Your task to perform on an android device: Play the latest video from the BBC Image 0: 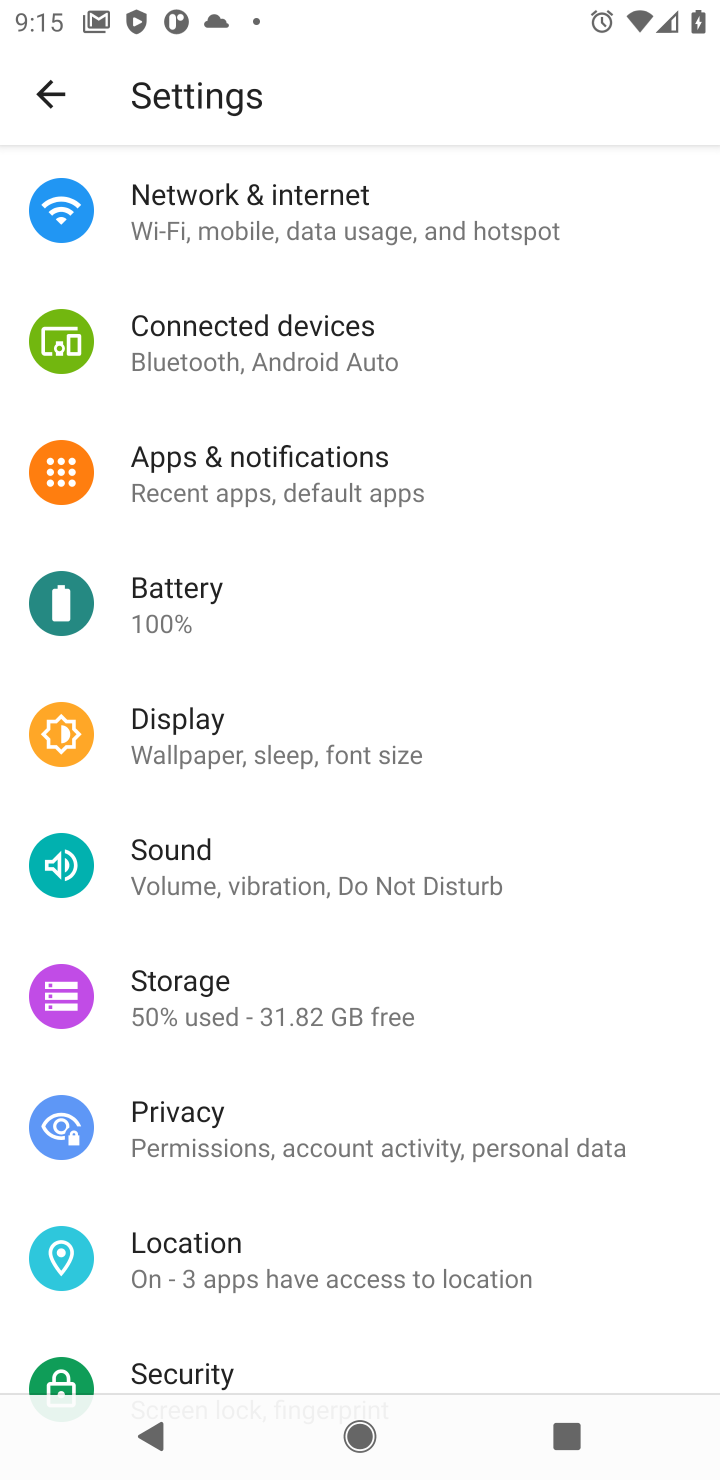
Step 0: press home button
Your task to perform on an android device: Play the latest video from the BBC Image 1: 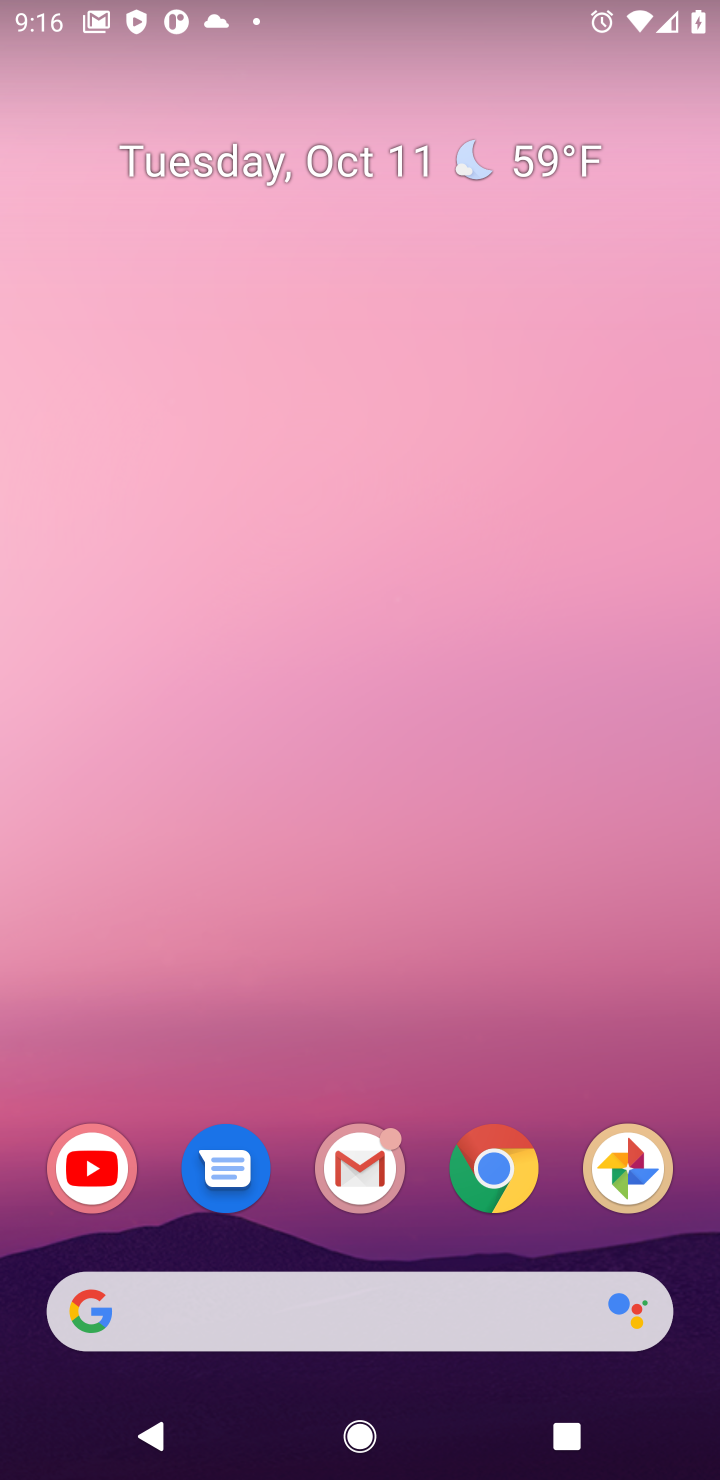
Step 1: drag from (379, 737) to (381, 240)
Your task to perform on an android device: Play the latest video from the BBC Image 2: 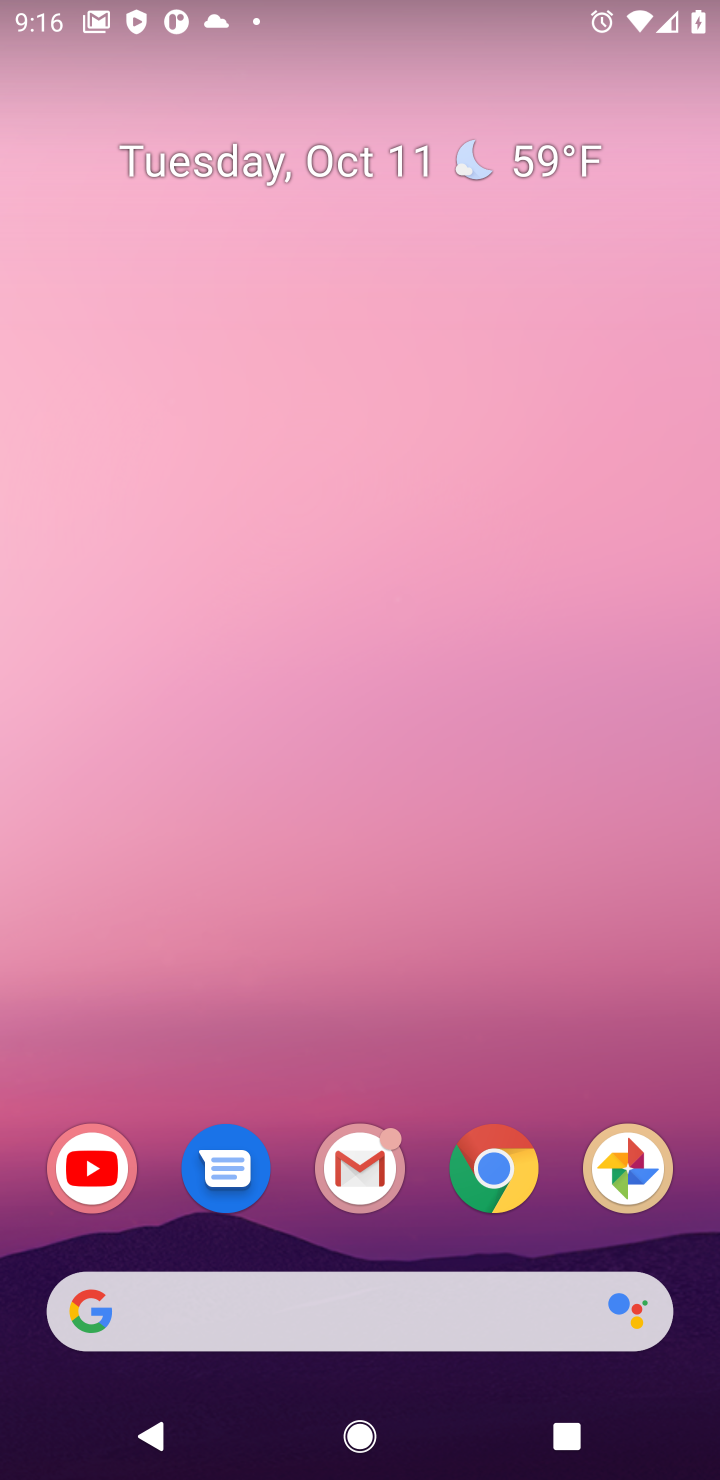
Step 2: drag from (375, 796) to (412, 268)
Your task to perform on an android device: Play the latest video from the BBC Image 3: 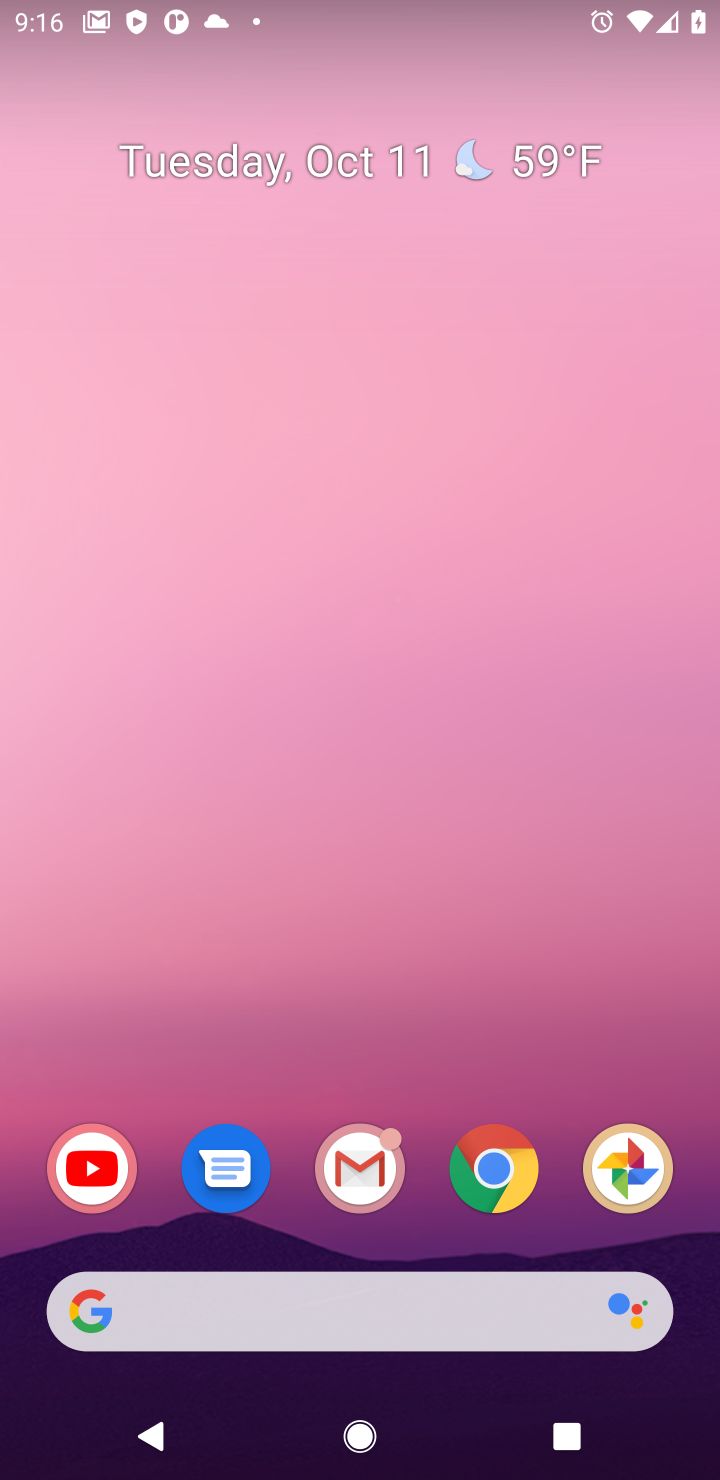
Step 3: drag from (317, 1056) to (372, 51)
Your task to perform on an android device: Play the latest video from the BBC Image 4: 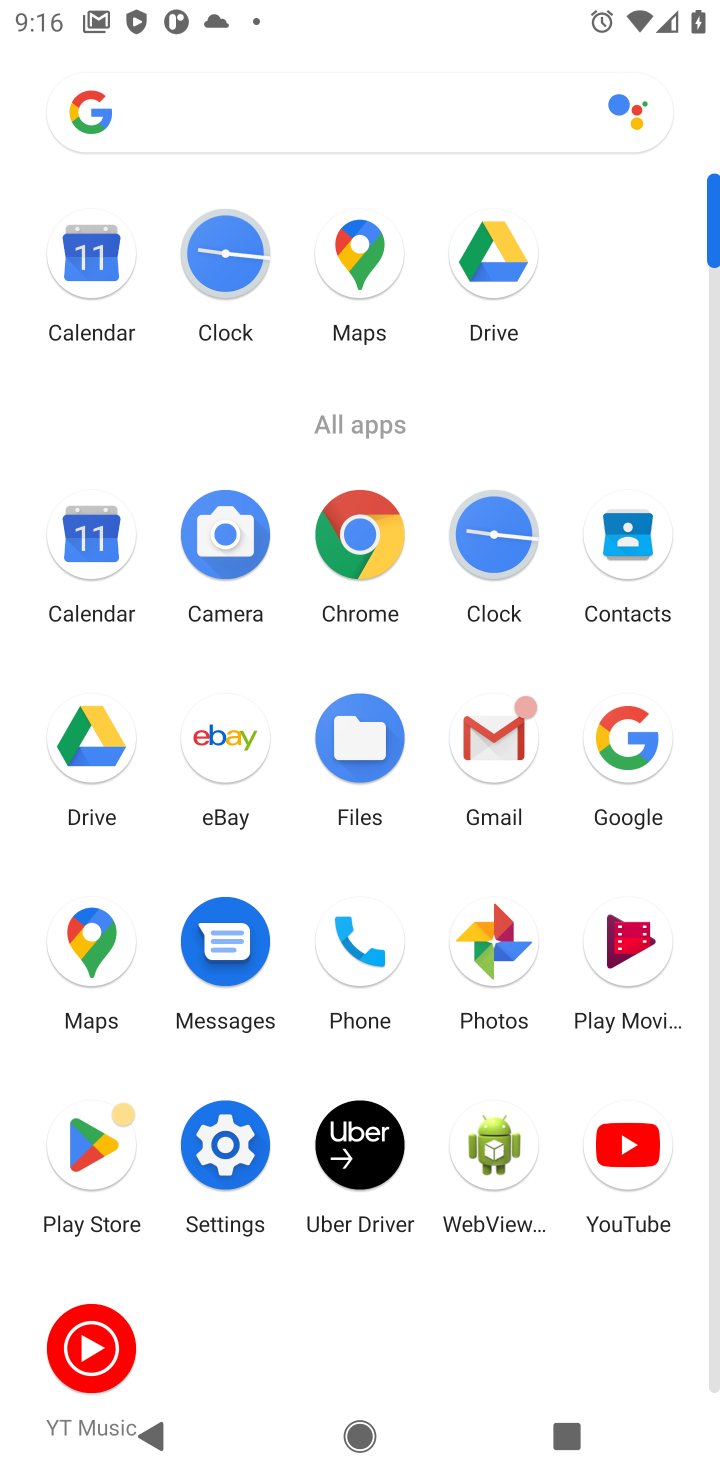
Step 4: click (650, 1137)
Your task to perform on an android device: Play the latest video from the BBC Image 5: 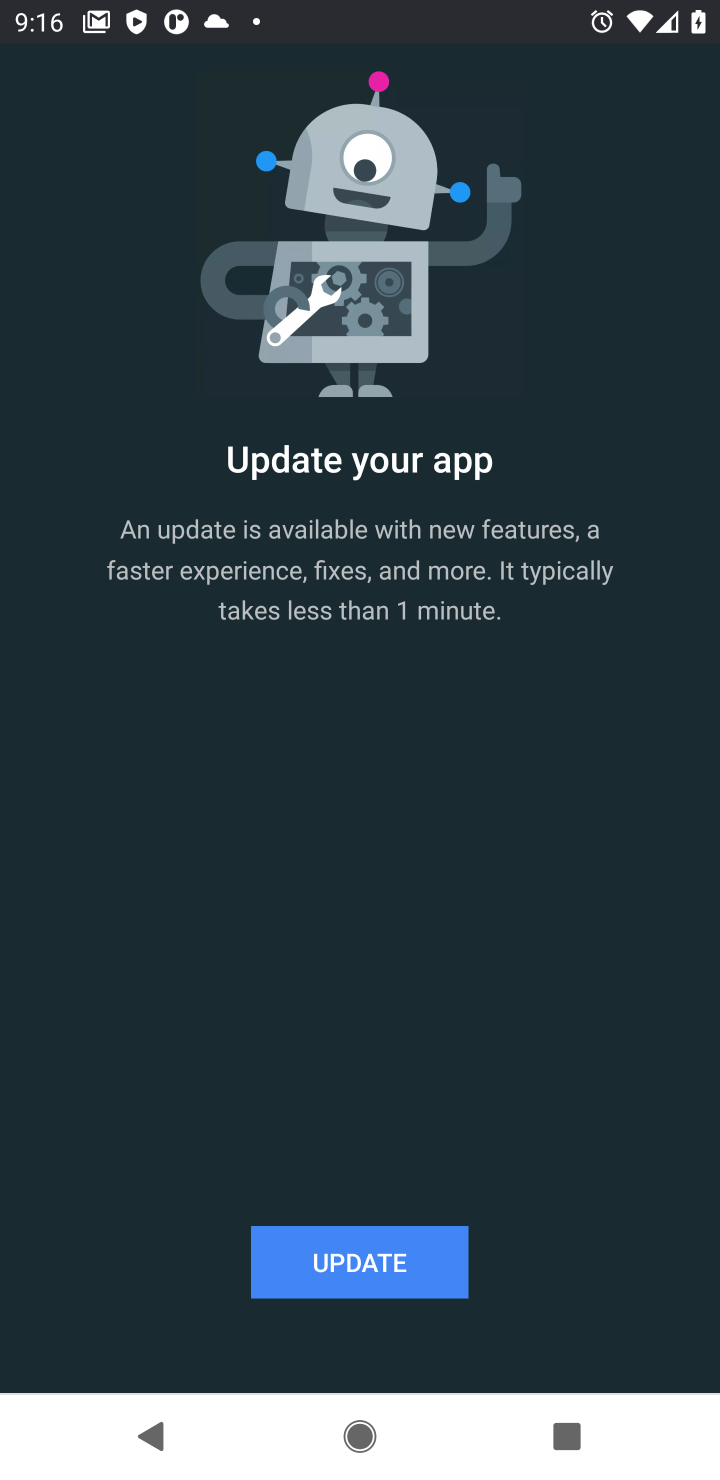
Step 5: click (322, 1254)
Your task to perform on an android device: Play the latest video from the BBC Image 6: 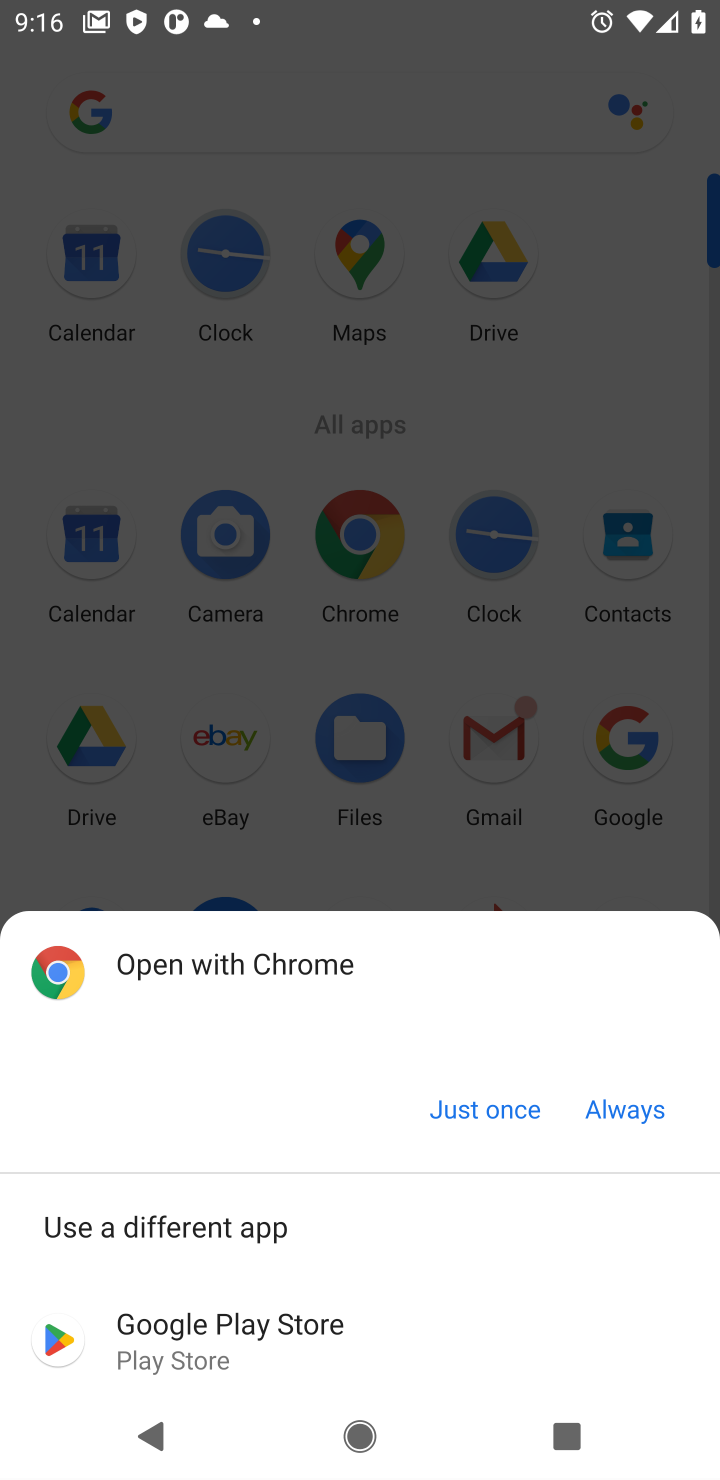
Step 6: click (226, 1341)
Your task to perform on an android device: Play the latest video from the BBC Image 7: 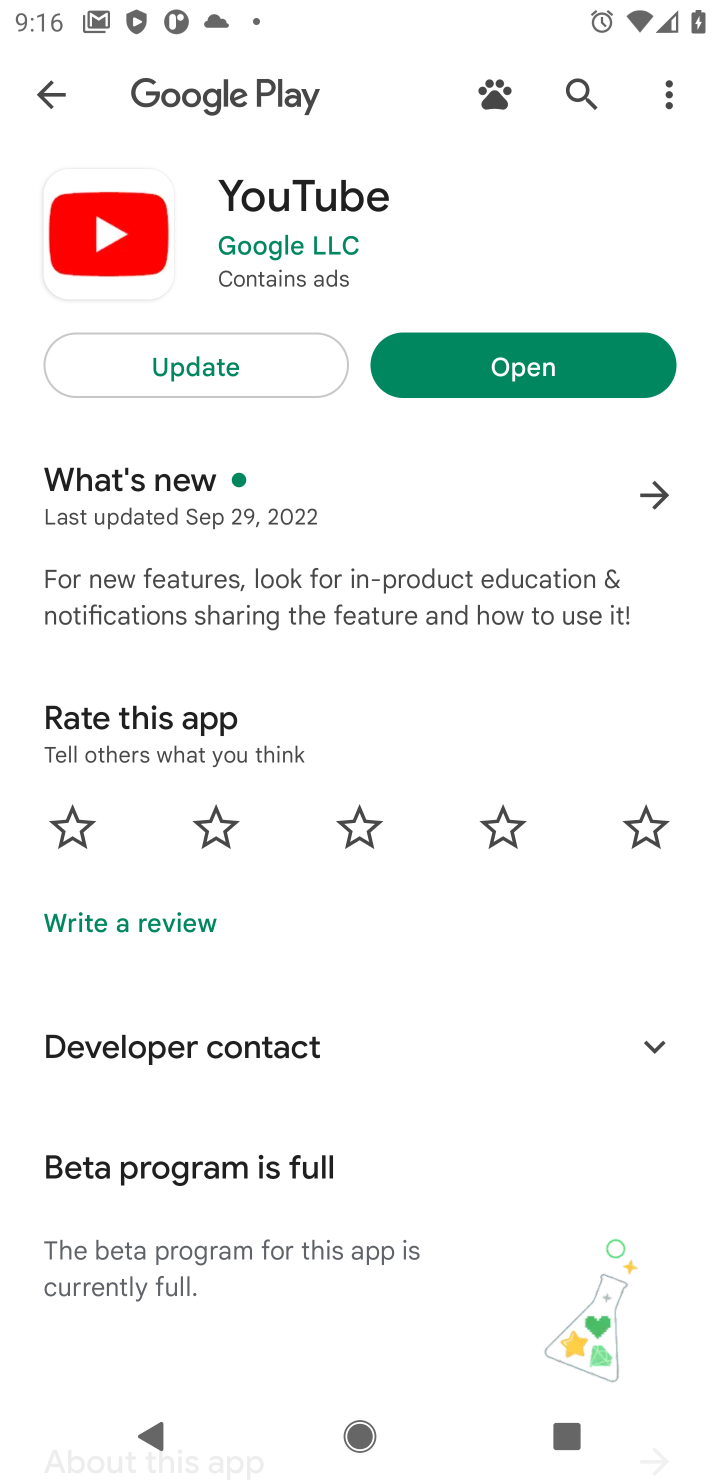
Step 7: click (590, 375)
Your task to perform on an android device: Play the latest video from the BBC Image 8: 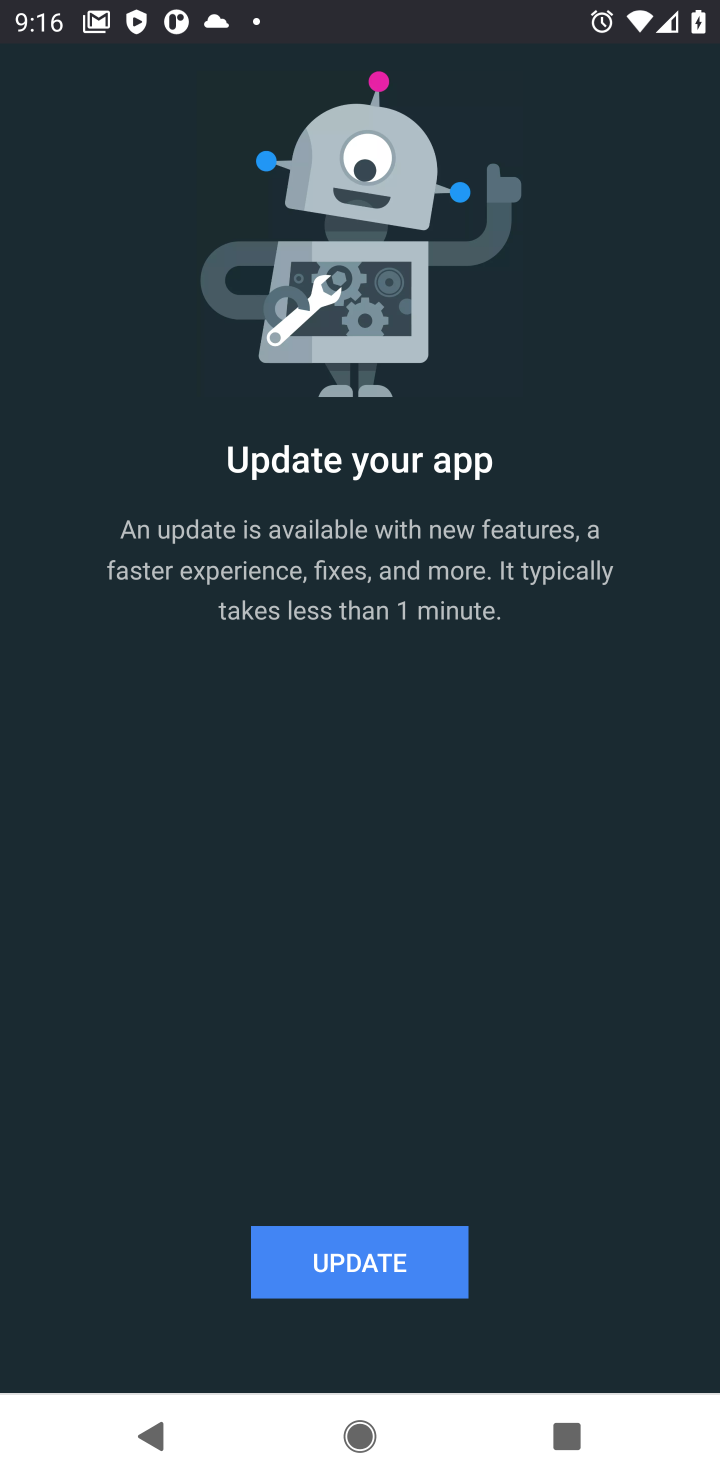
Step 8: click (423, 1265)
Your task to perform on an android device: Play the latest video from the BBC Image 9: 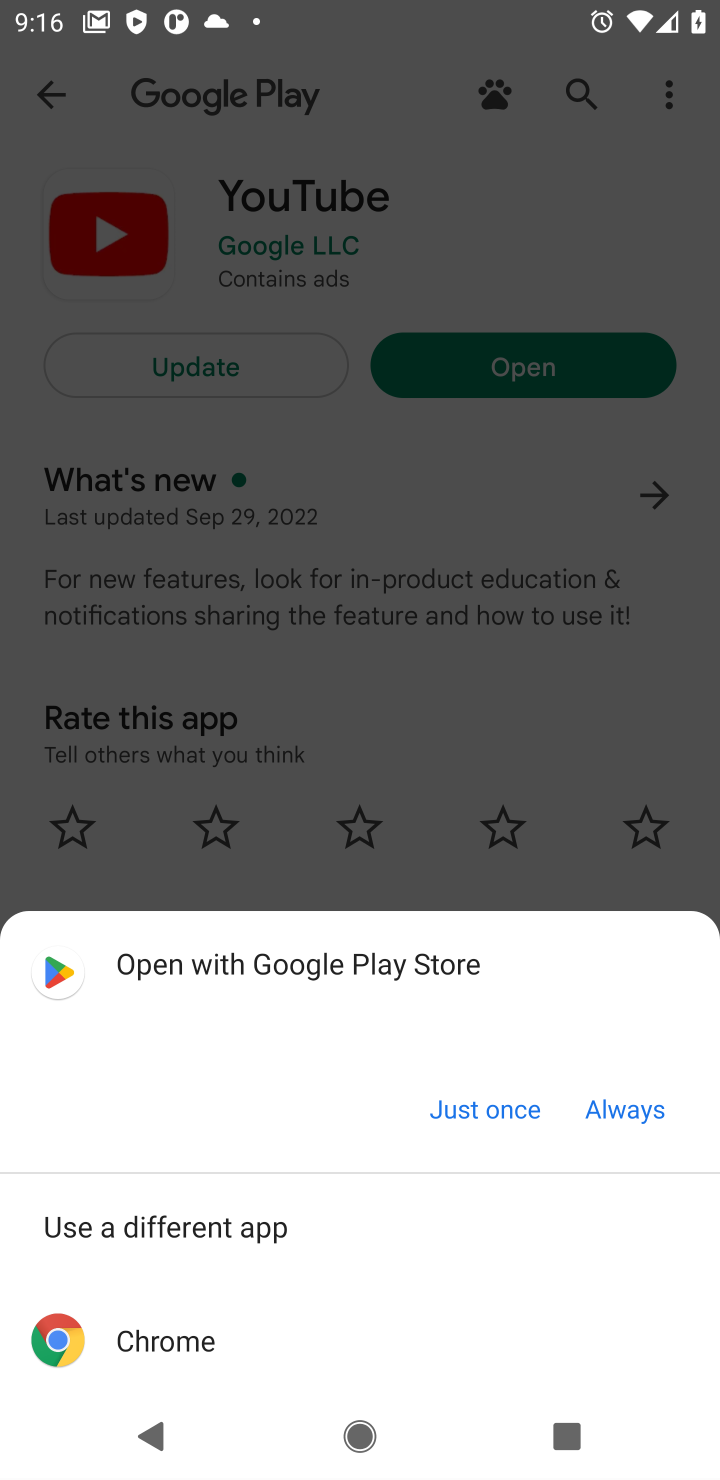
Step 9: click (182, 1344)
Your task to perform on an android device: Play the latest video from the BBC Image 10: 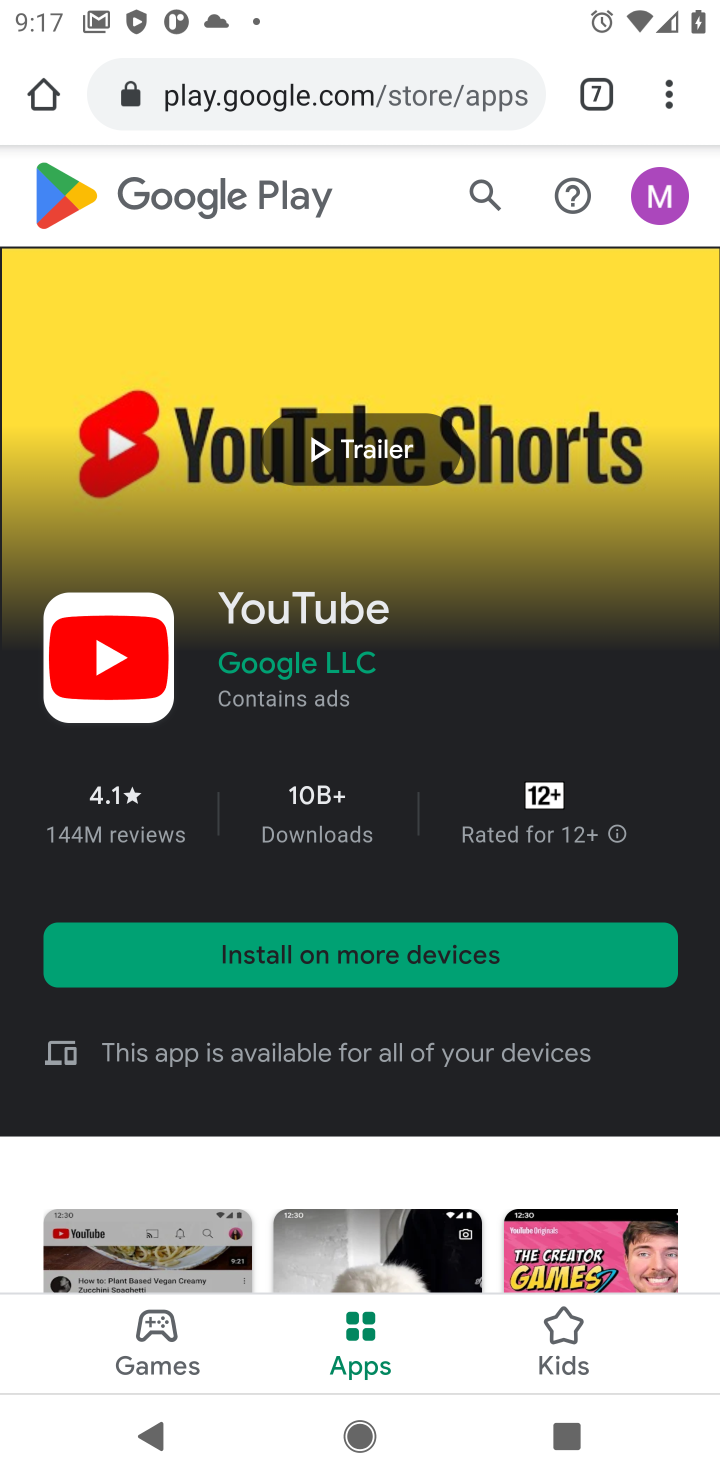
Step 10: click (295, 599)
Your task to perform on an android device: Play the latest video from the BBC Image 11: 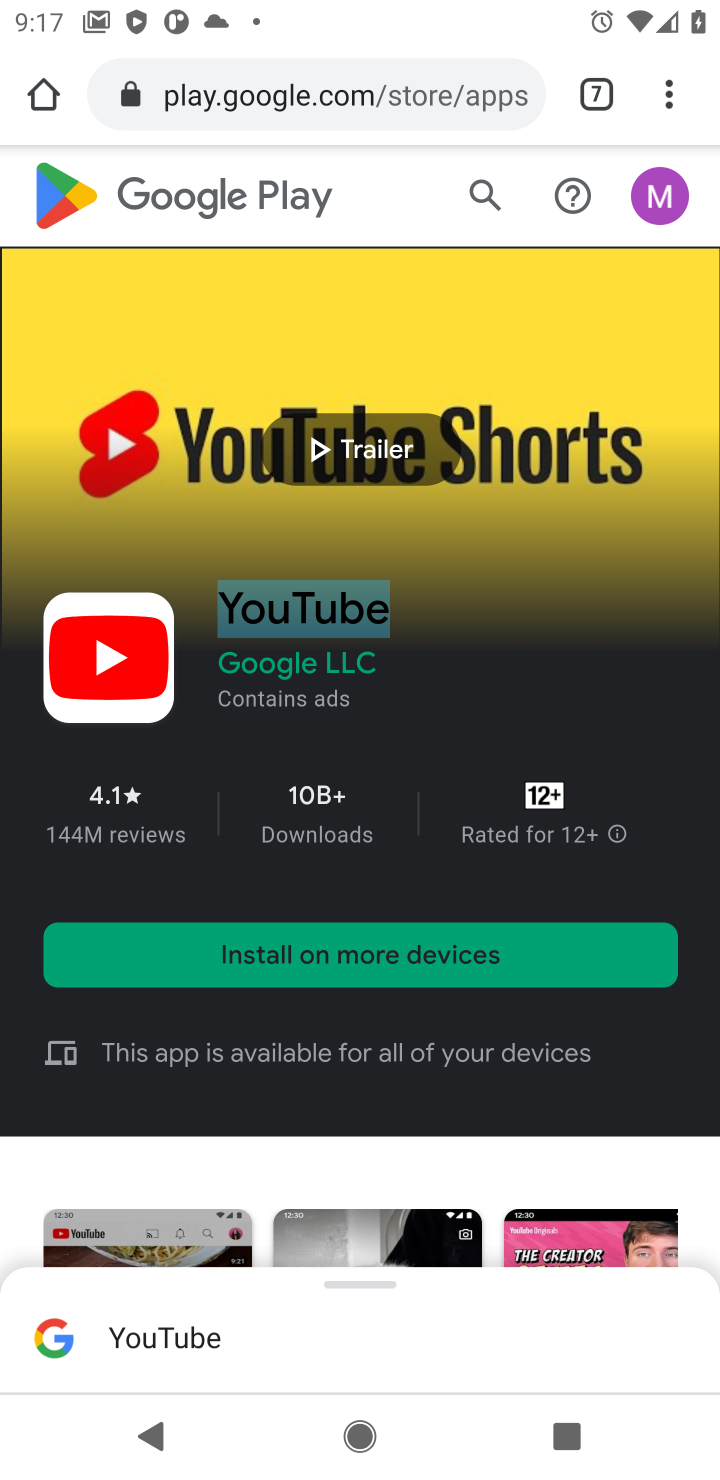
Step 11: click (334, 940)
Your task to perform on an android device: Play the latest video from the BBC Image 12: 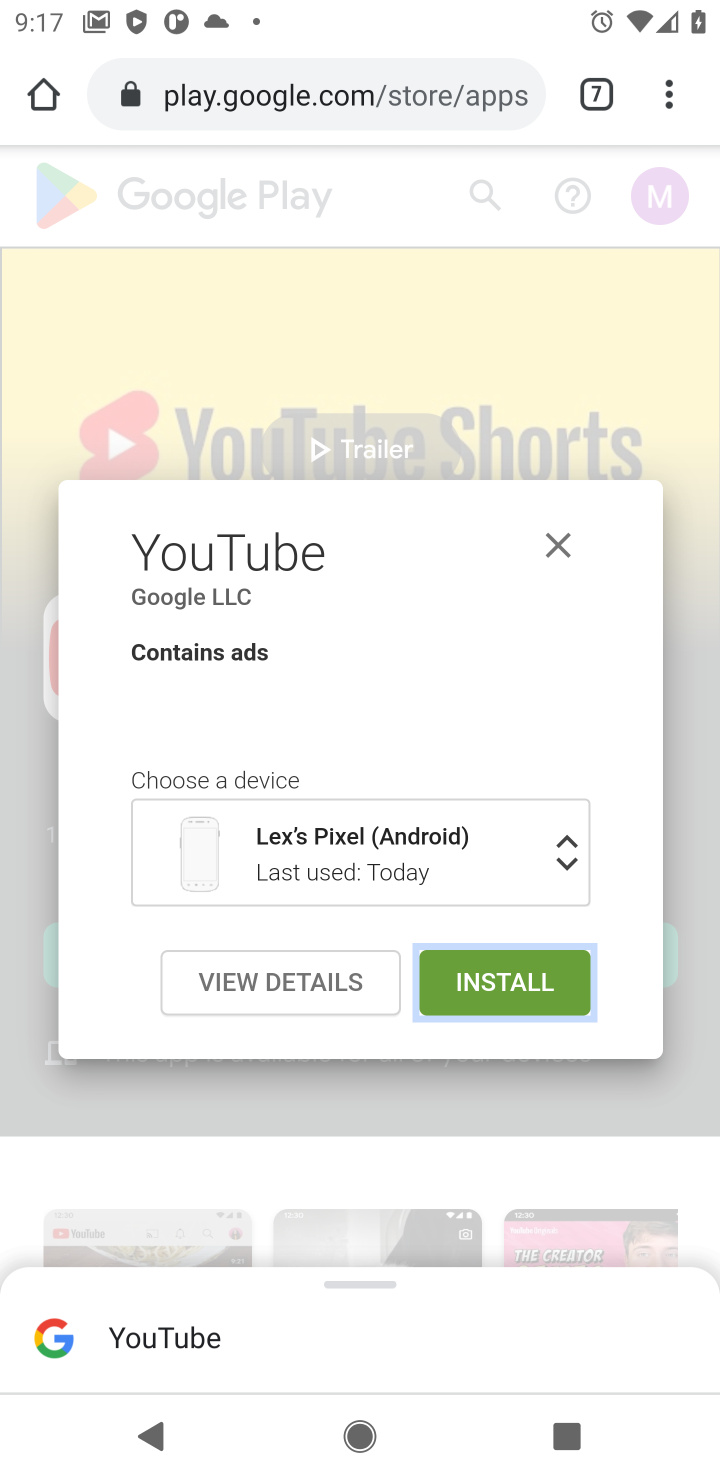
Step 12: click (553, 545)
Your task to perform on an android device: Play the latest video from the BBC Image 13: 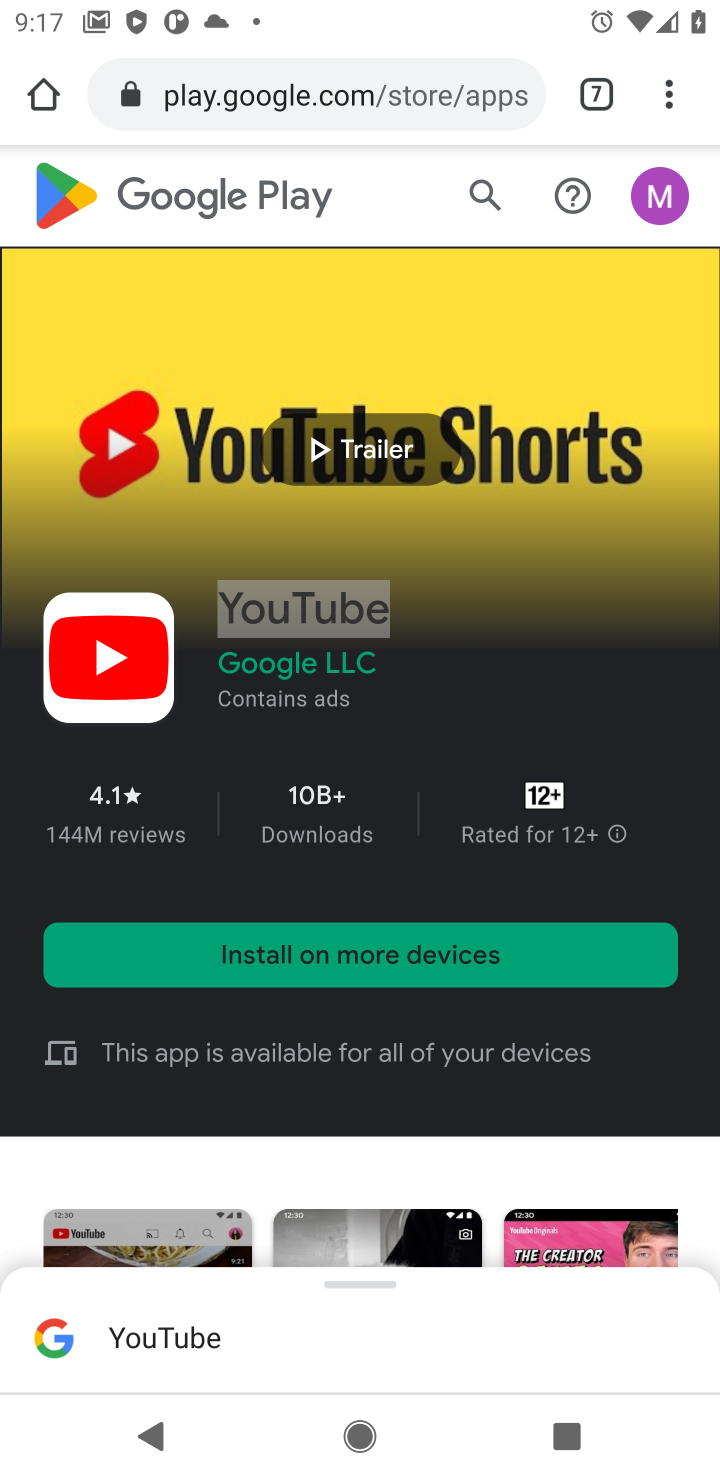
Step 13: click (482, 179)
Your task to perform on an android device: Play the latest video from the BBC Image 14: 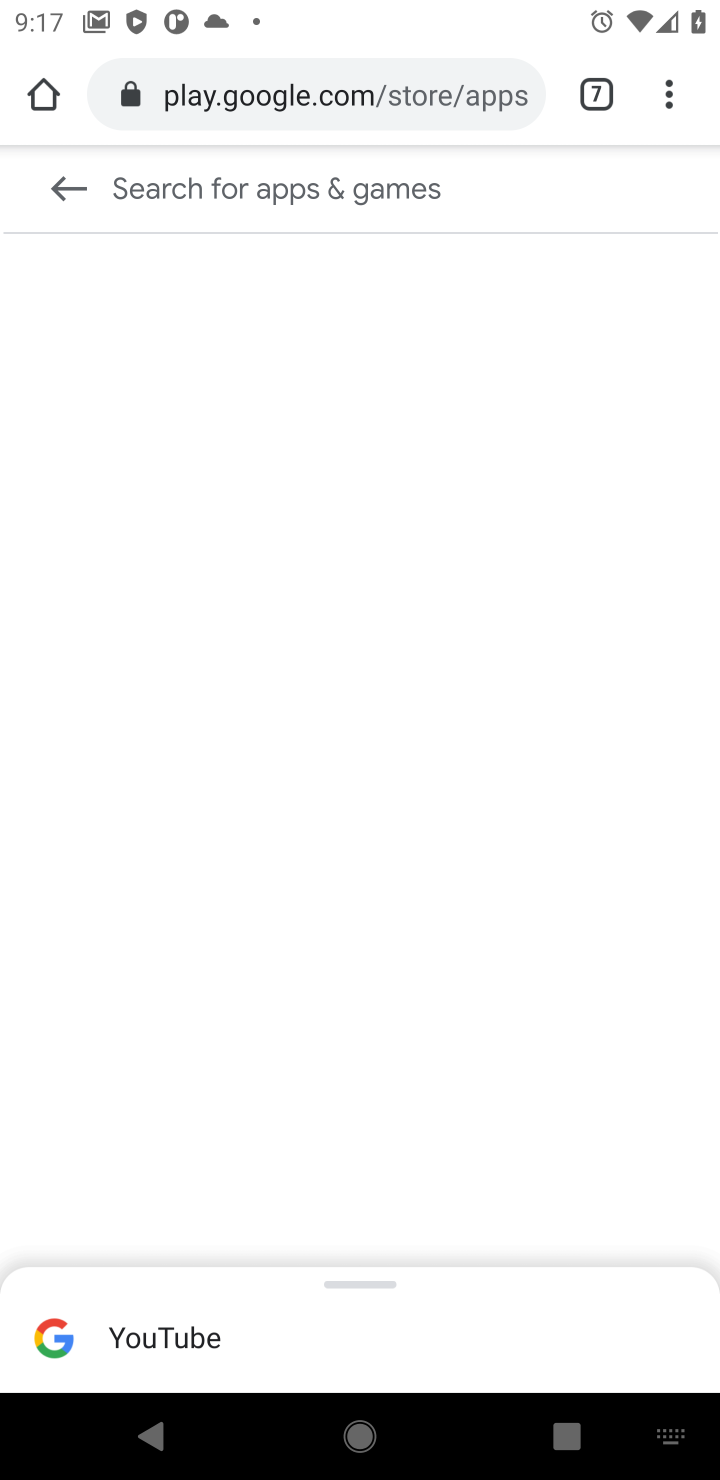
Step 14: type "latest video from bbc"
Your task to perform on an android device: Play the latest video from the BBC Image 15: 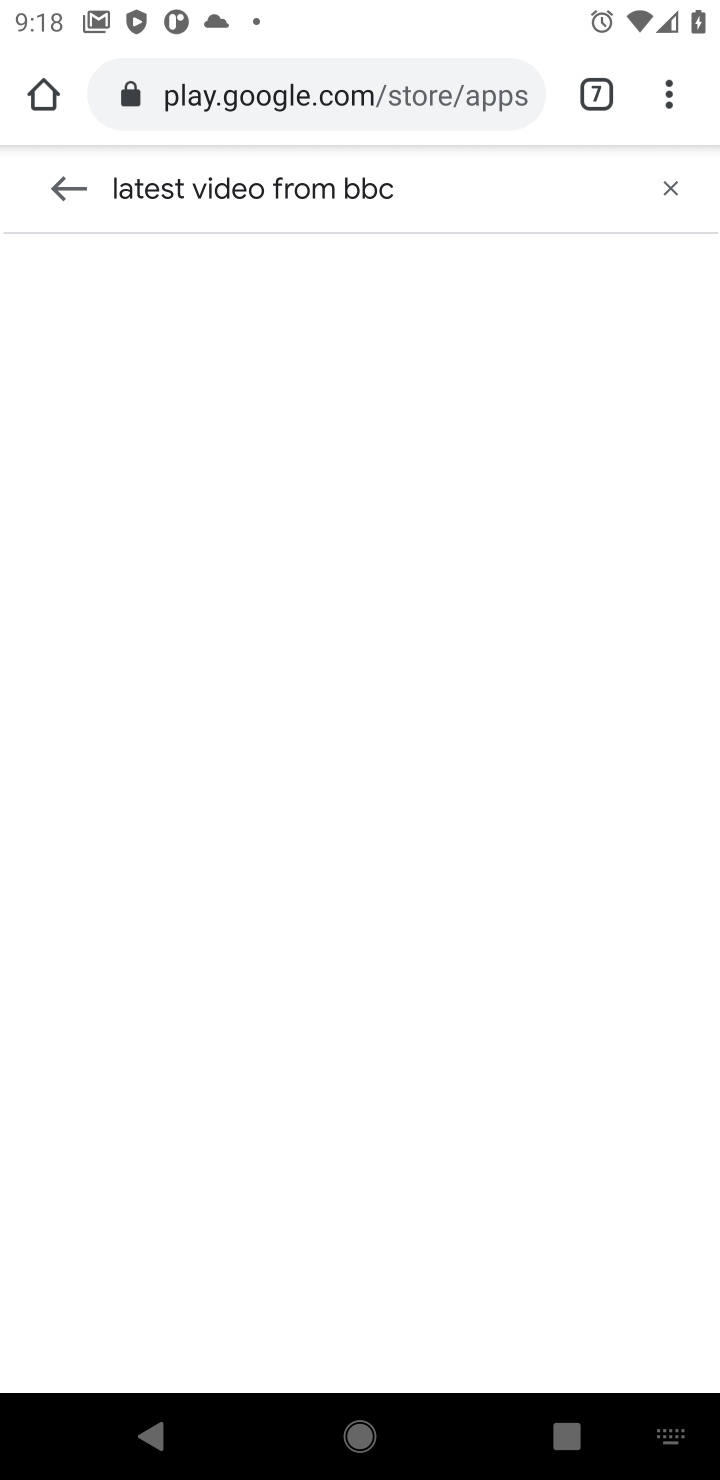
Step 15: type ""
Your task to perform on an android device: Play the latest video from the BBC Image 16: 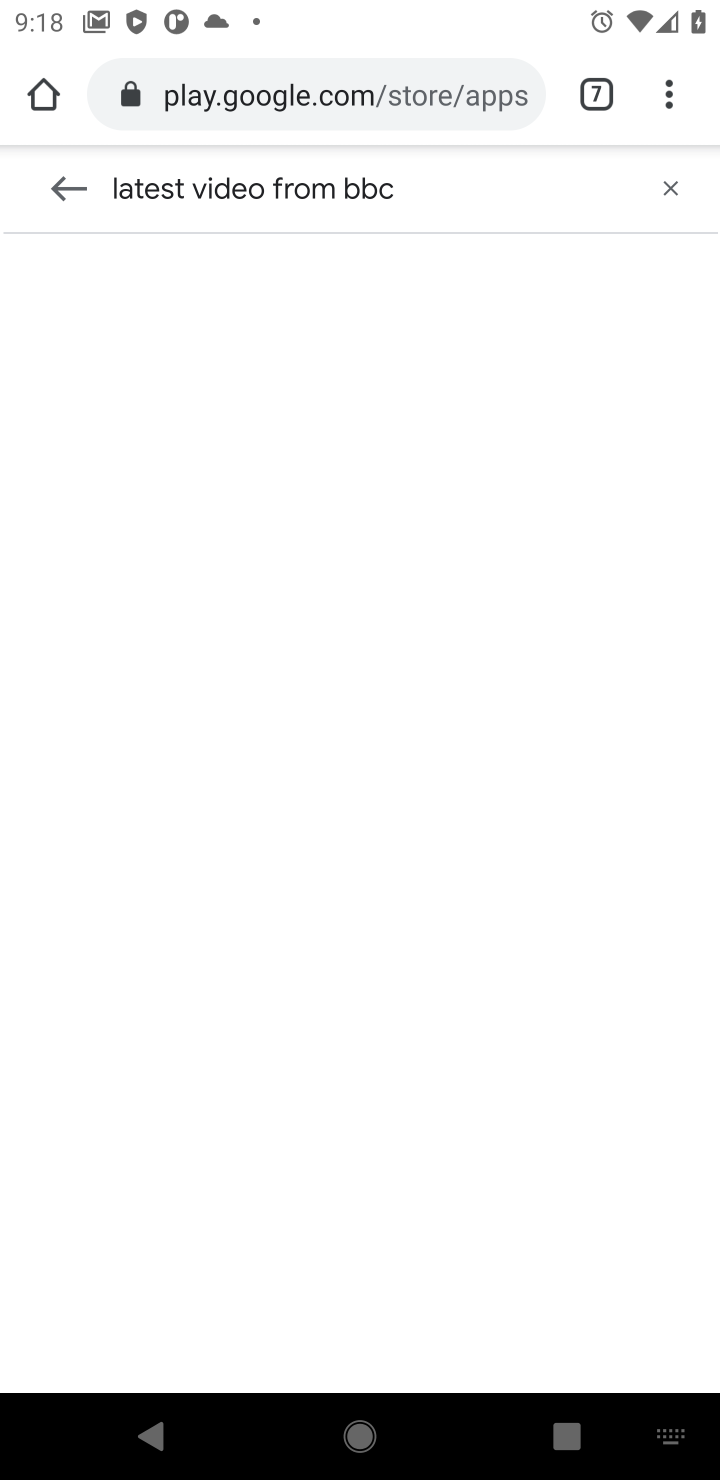
Step 16: type ""
Your task to perform on an android device: Play the latest video from the BBC Image 17: 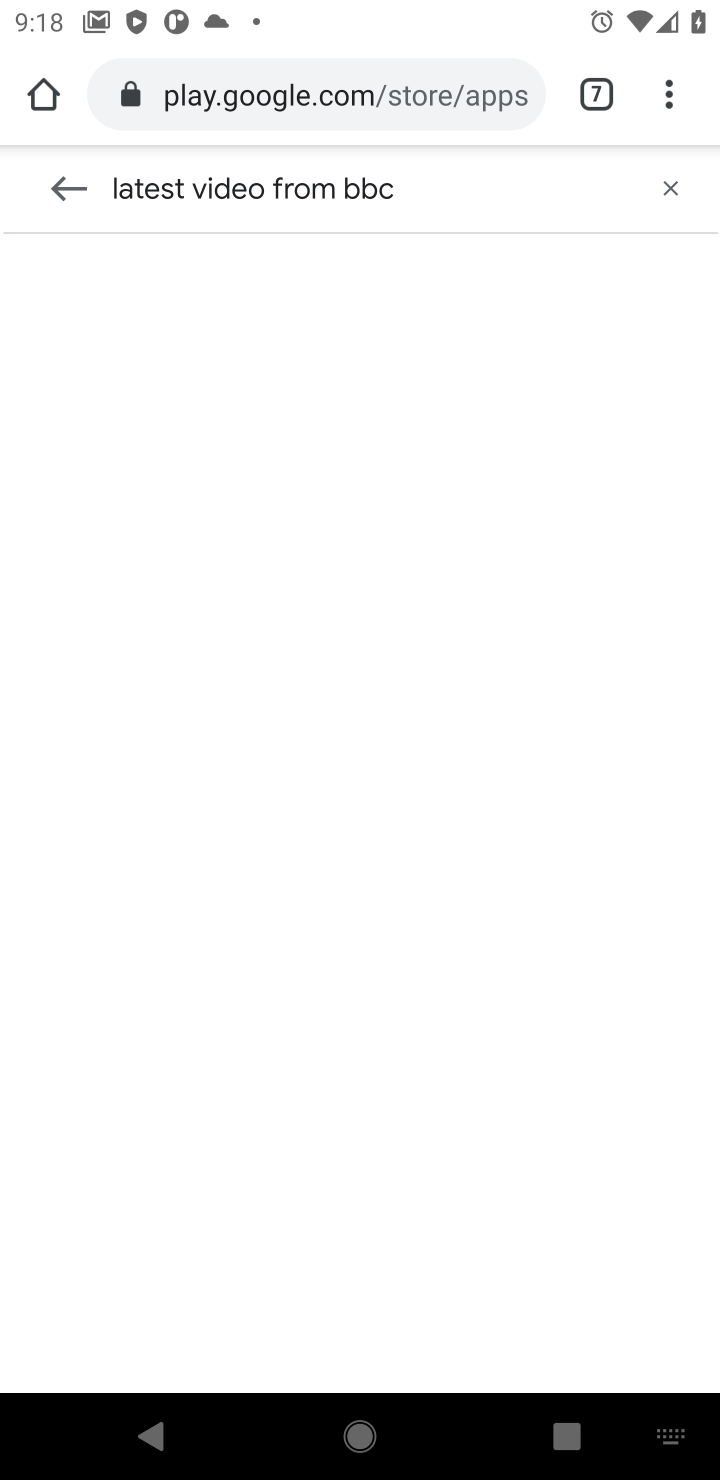
Step 17: type ""
Your task to perform on an android device: Play the latest video from the BBC Image 18: 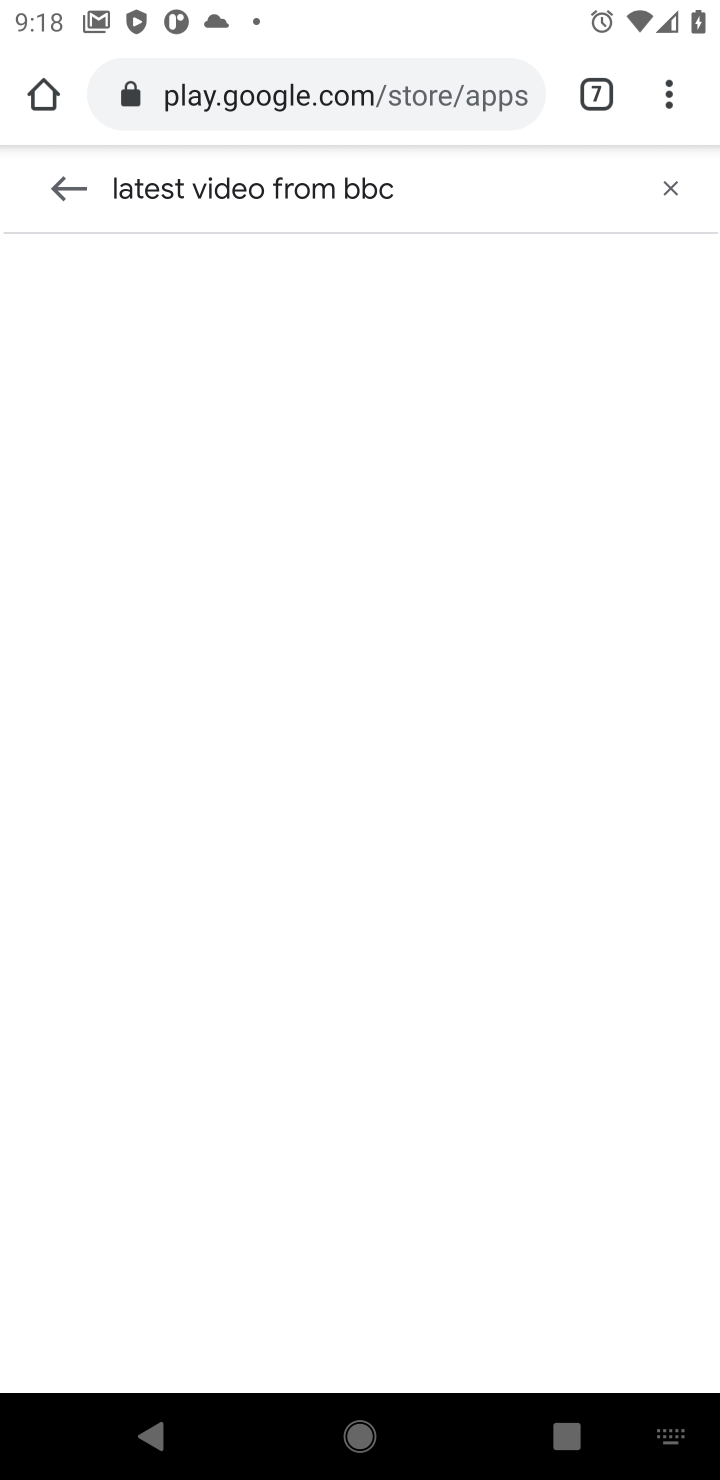
Step 18: click (665, 194)
Your task to perform on an android device: Play the latest video from the BBC Image 19: 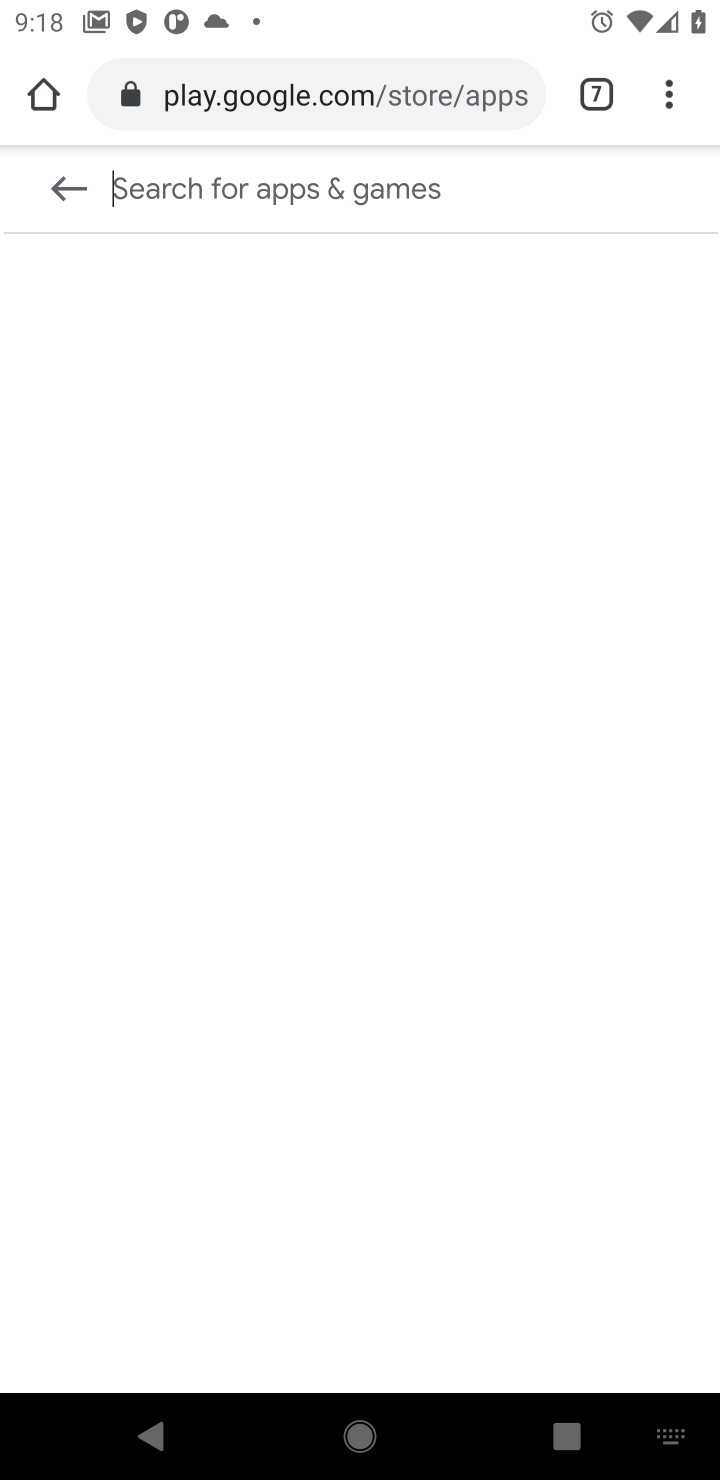
Step 19: press home button
Your task to perform on an android device: Play the latest video from the BBC Image 20: 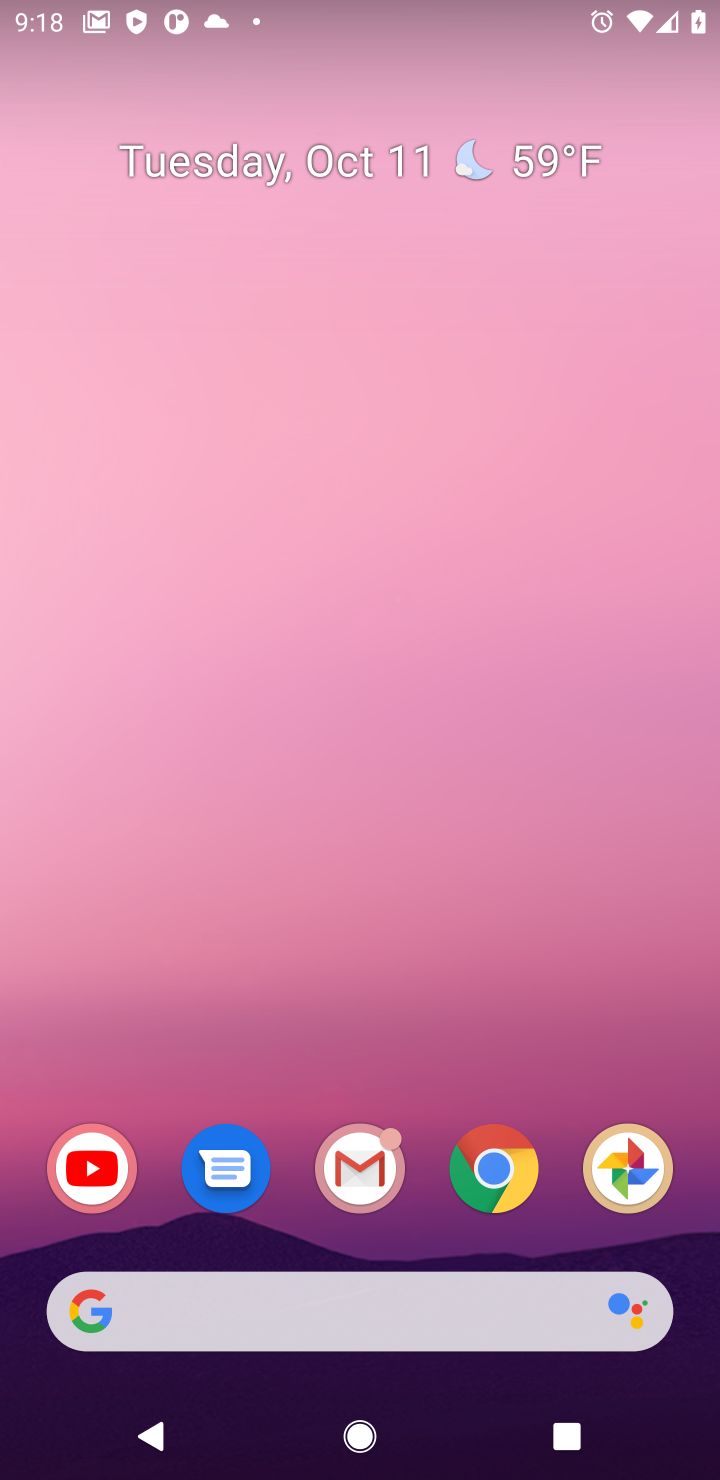
Step 20: click (488, 1162)
Your task to perform on an android device: Play the latest video from the BBC Image 21: 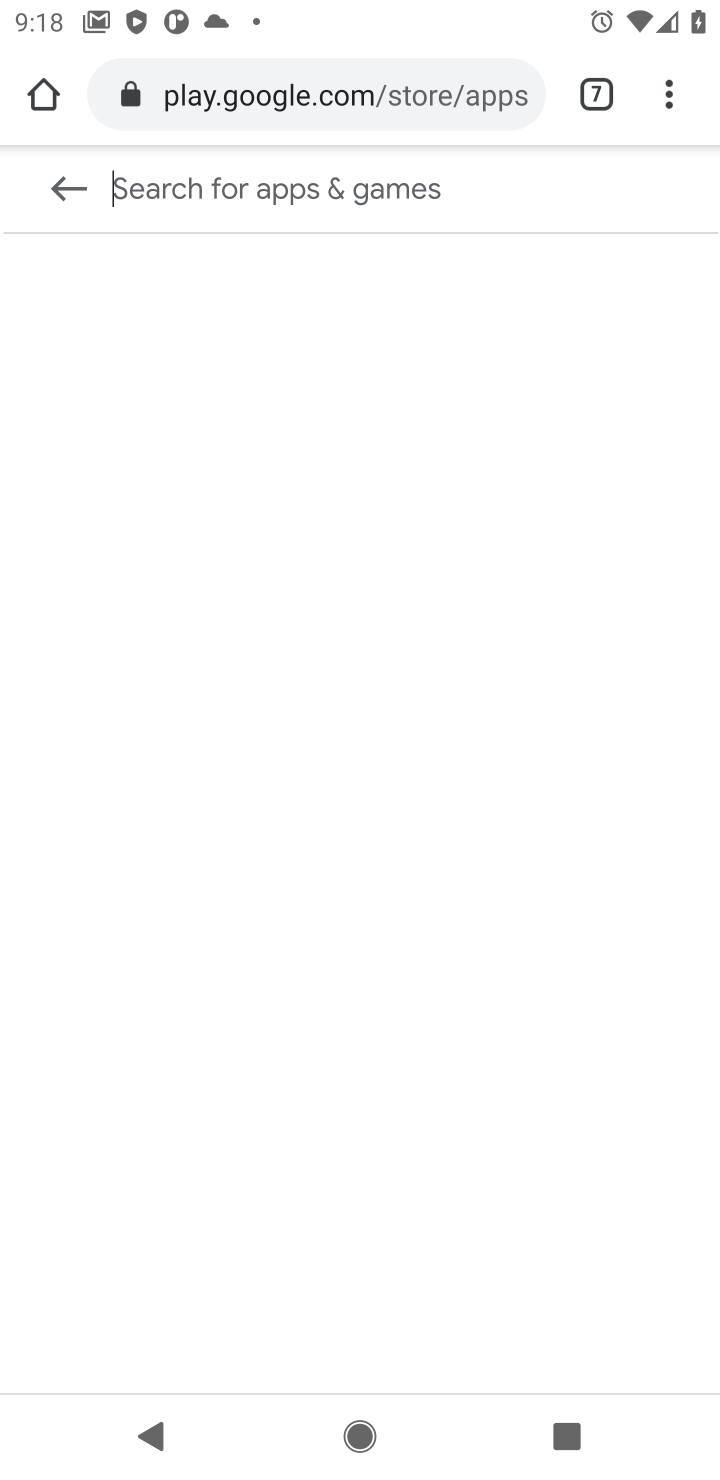
Step 21: click (252, 96)
Your task to perform on an android device: Play the latest video from the BBC Image 22: 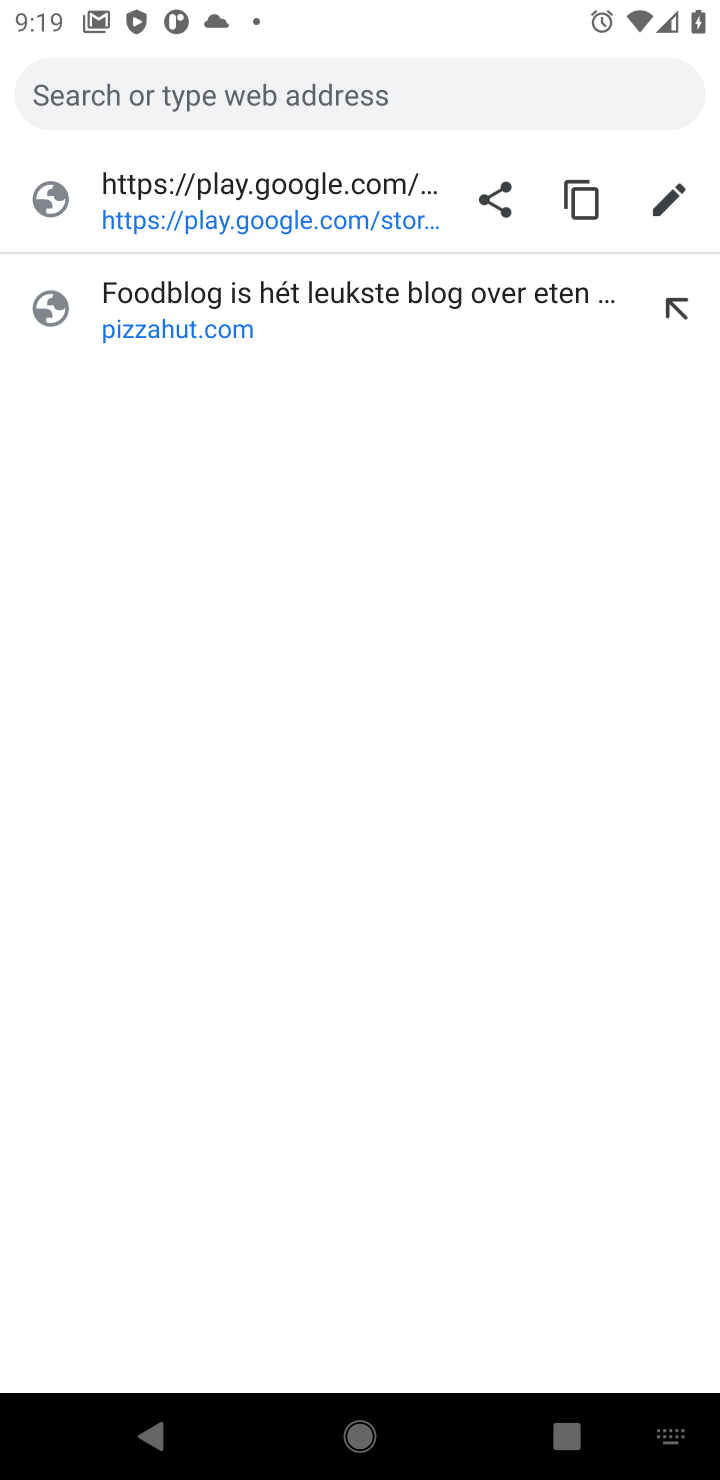
Step 22: type "latest video from the bbc"
Your task to perform on an android device: Play the latest video from the BBC Image 23: 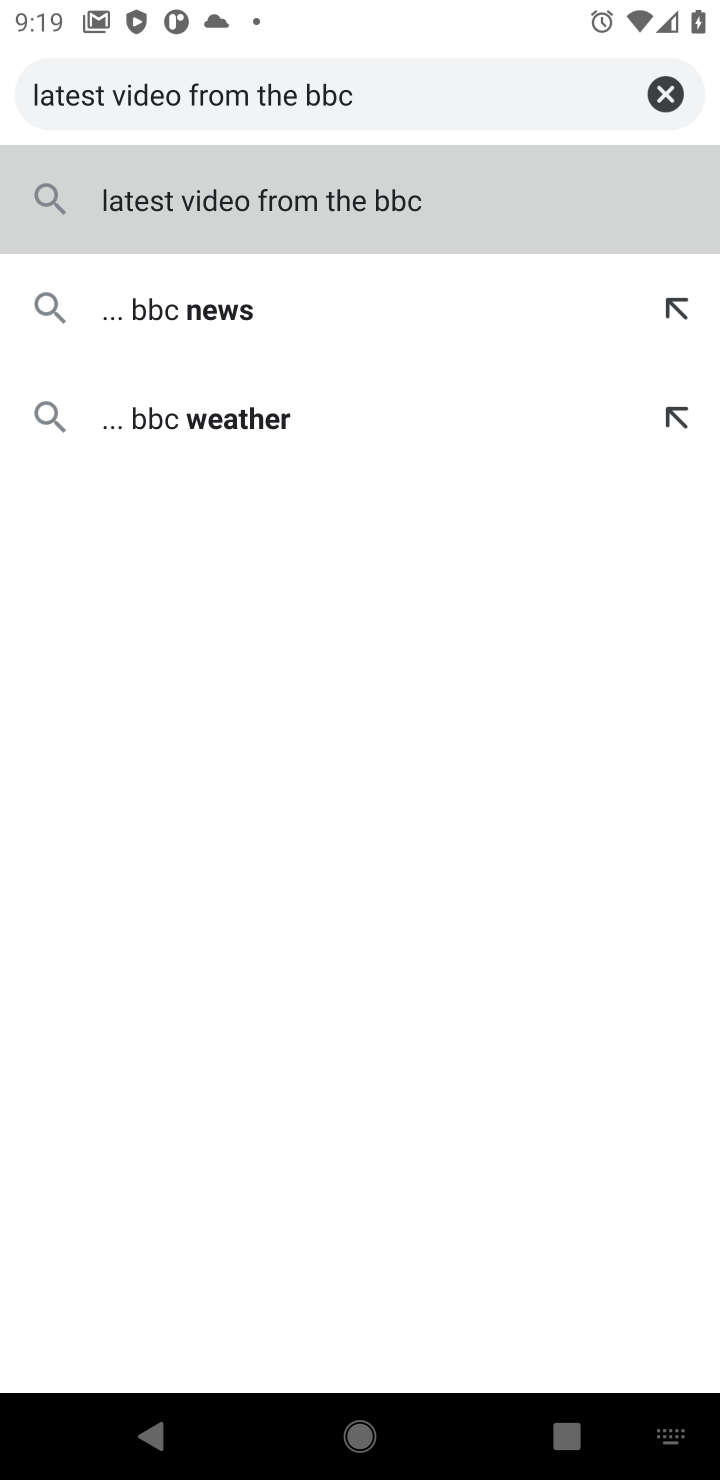
Step 23: click (291, 203)
Your task to perform on an android device: Play the latest video from the BBC Image 24: 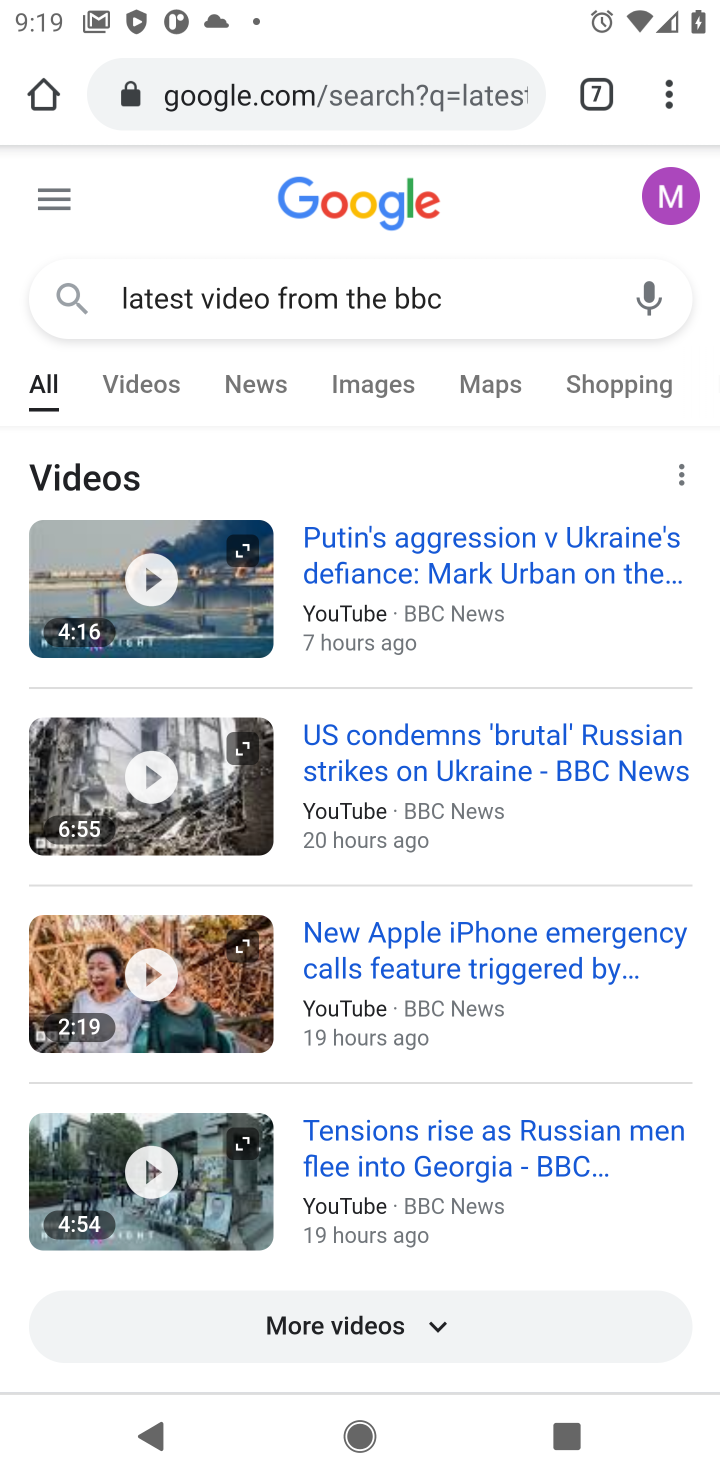
Step 24: drag from (224, 1120) to (247, 664)
Your task to perform on an android device: Play the latest video from the BBC Image 25: 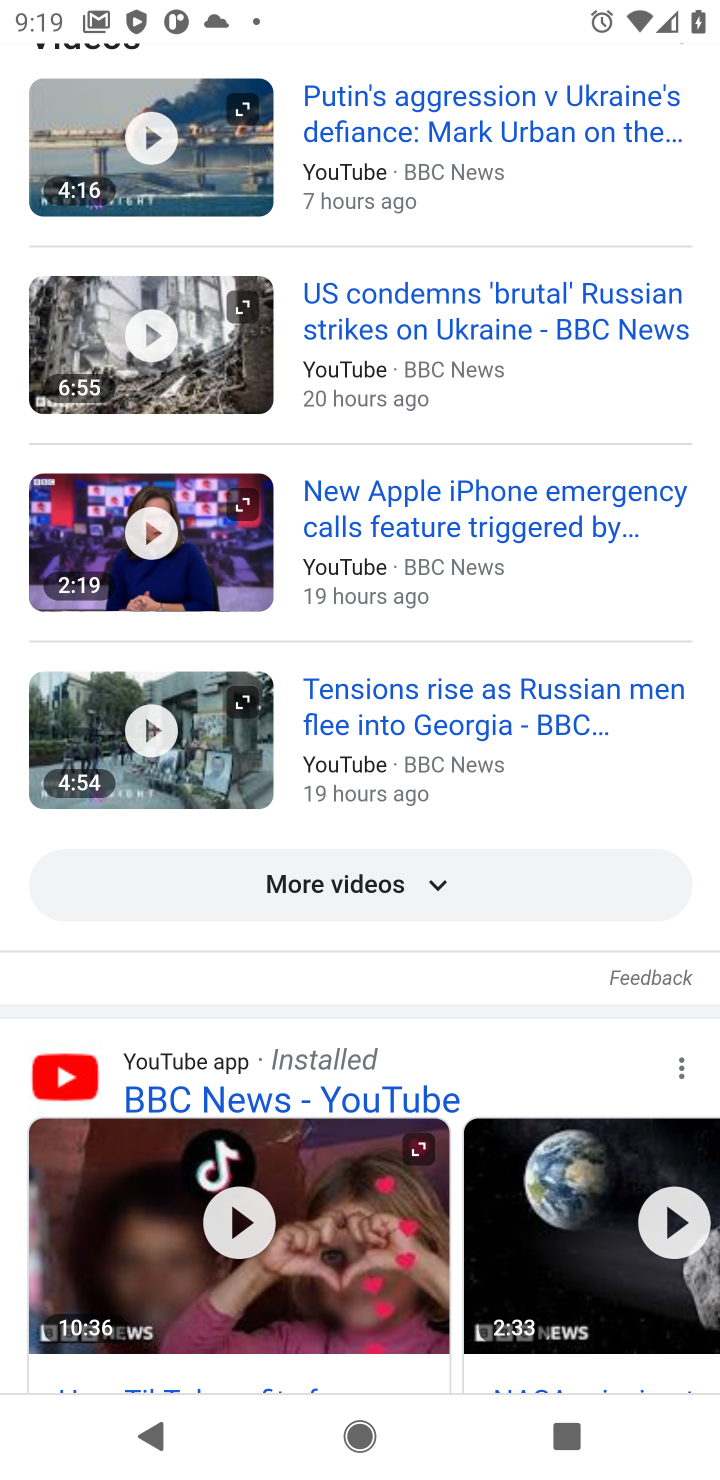
Step 25: click (345, 1268)
Your task to perform on an android device: Play the latest video from the BBC Image 26: 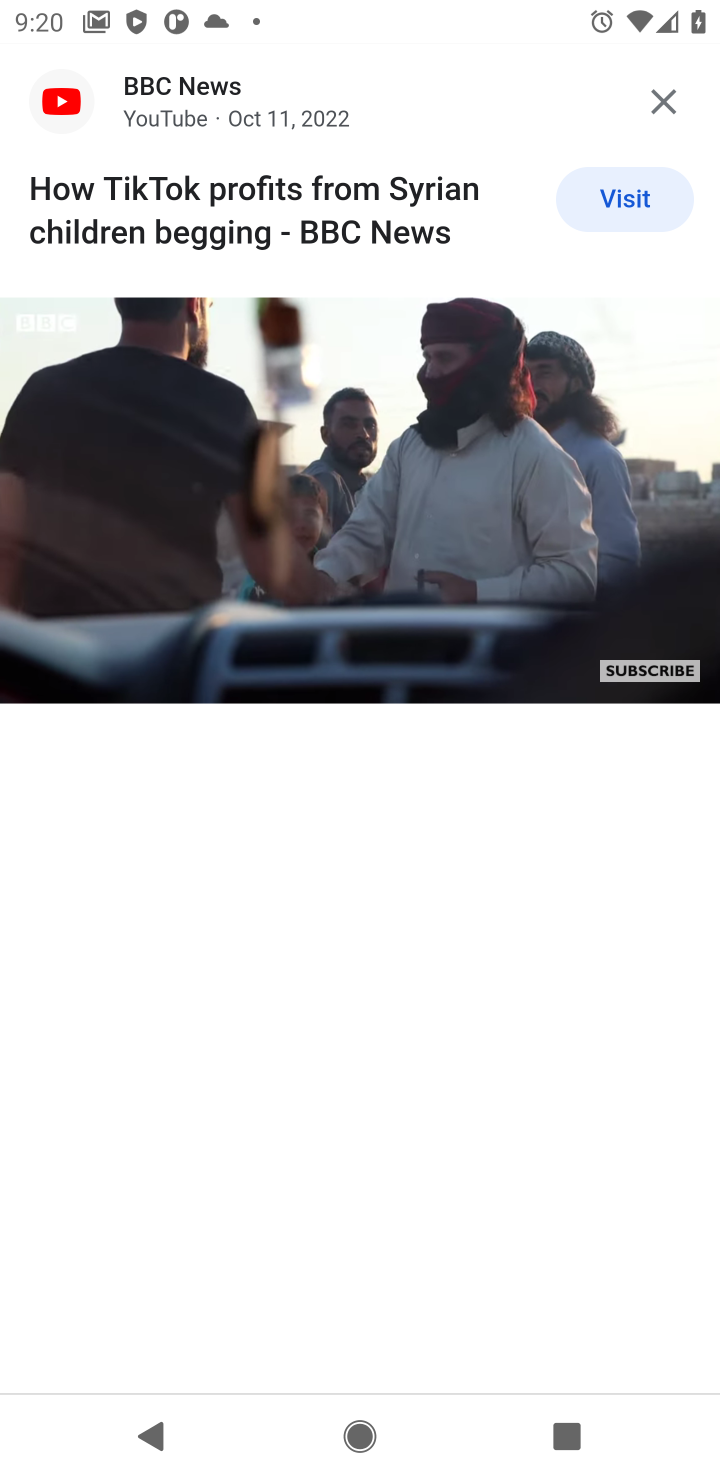
Step 26: drag from (331, 876) to (534, 390)
Your task to perform on an android device: Play the latest video from the BBC Image 27: 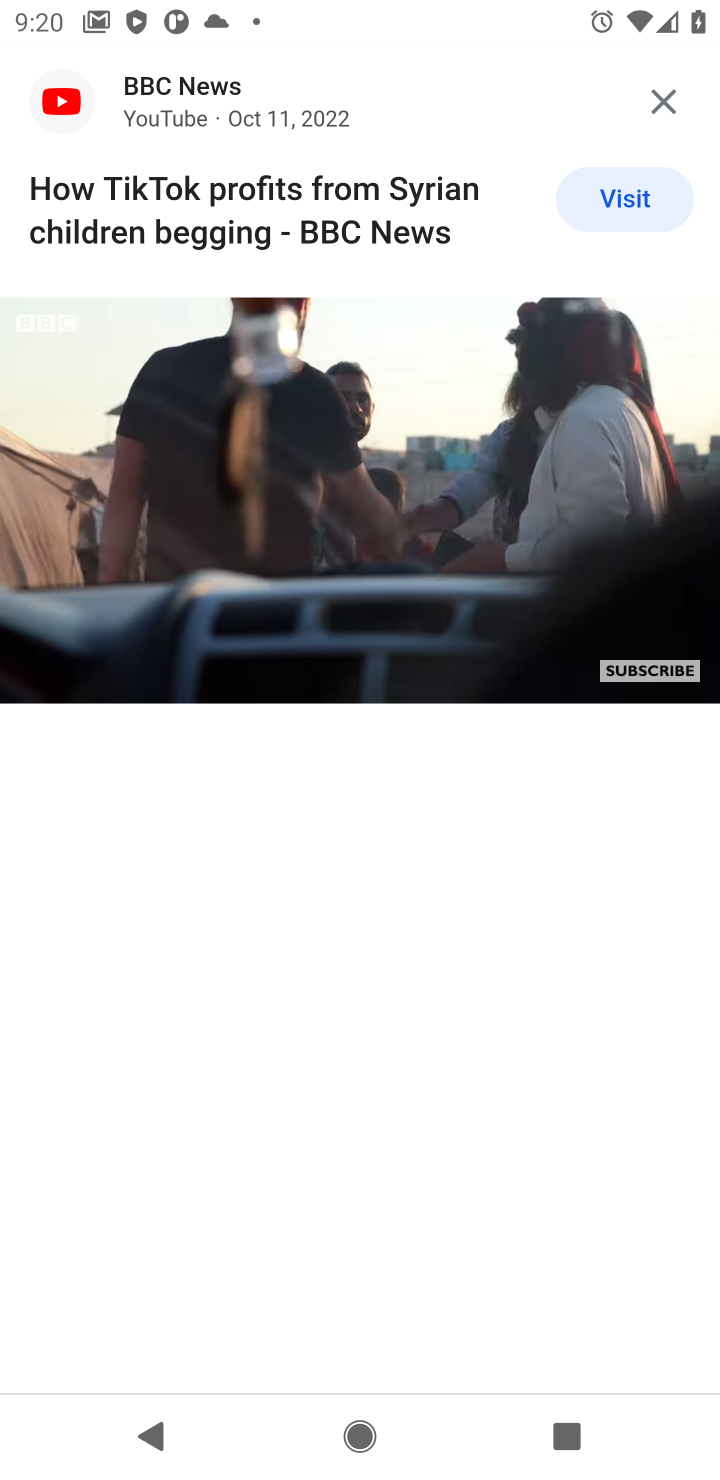
Step 27: click (655, 108)
Your task to perform on an android device: Play the latest video from the BBC Image 28: 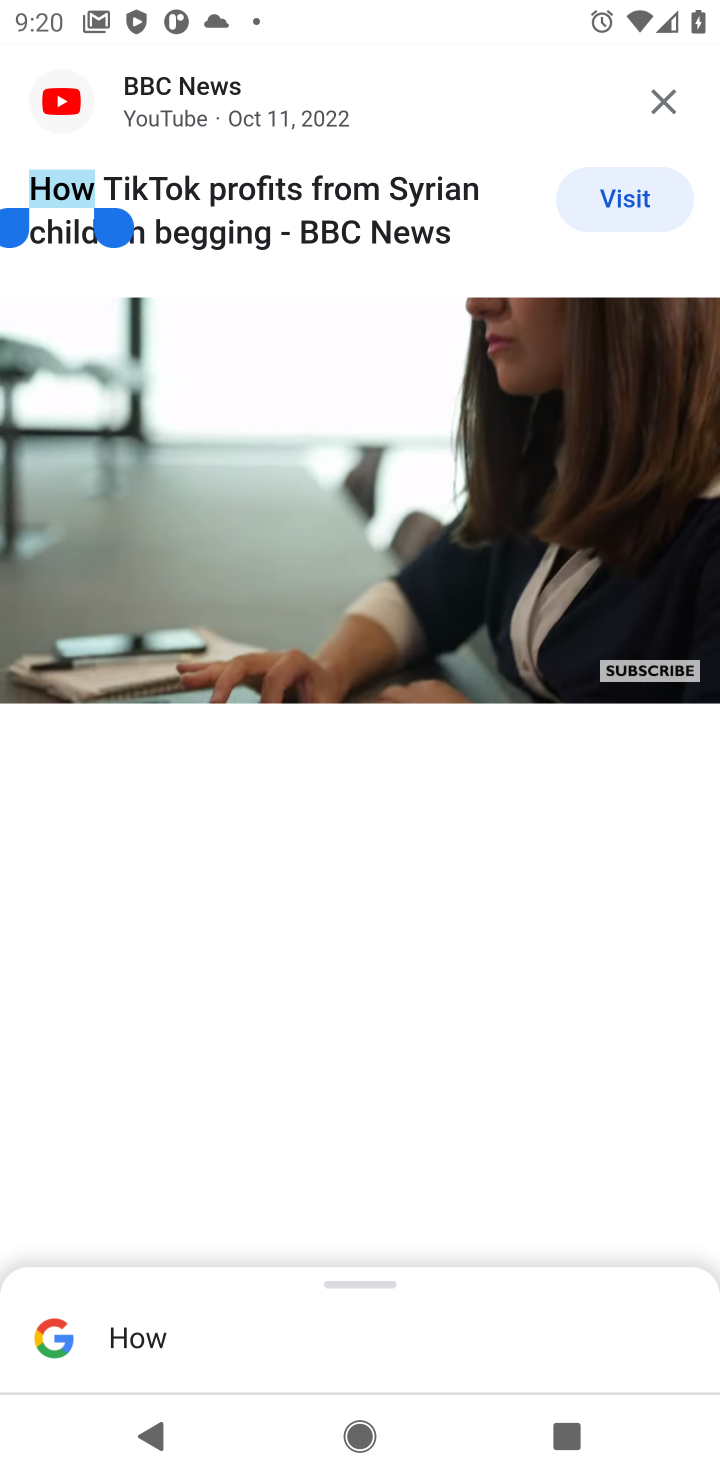
Step 28: task complete